Your task to perform on an android device: Open calendar and show me the first week of next month Image 0: 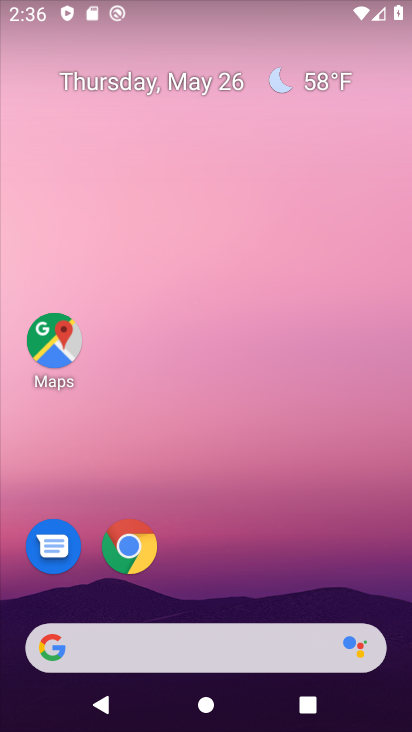
Step 0: press home button
Your task to perform on an android device: Open calendar and show me the first week of next month Image 1: 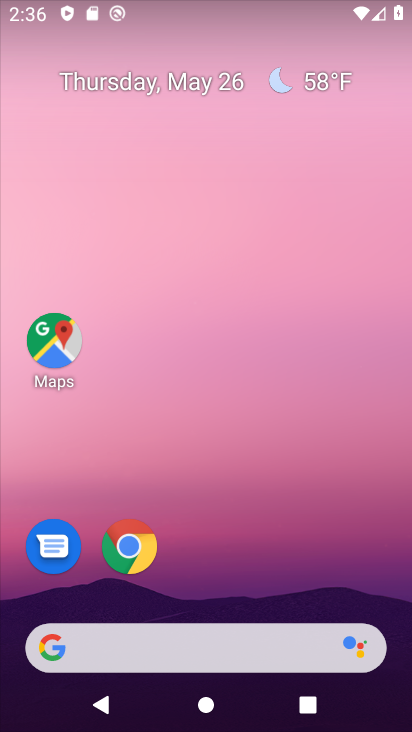
Step 1: drag from (215, 603) to (219, 78)
Your task to perform on an android device: Open calendar and show me the first week of next month Image 2: 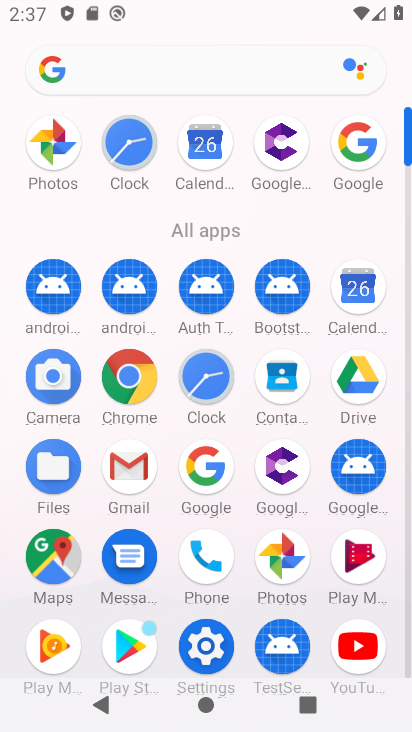
Step 2: click (358, 289)
Your task to perform on an android device: Open calendar and show me the first week of next month Image 3: 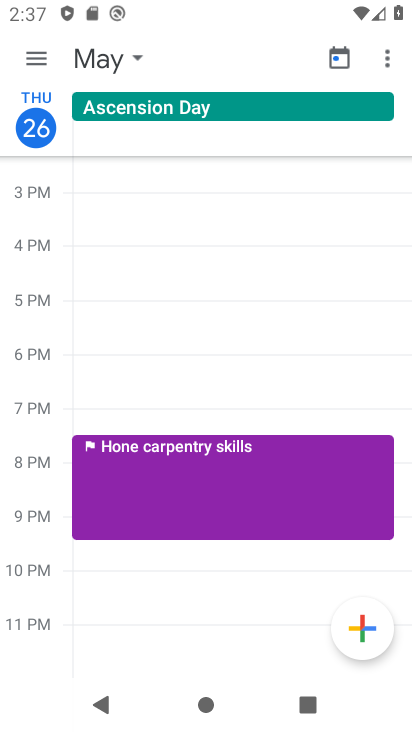
Step 3: drag from (137, 580) to (153, 278)
Your task to perform on an android device: Open calendar and show me the first week of next month Image 4: 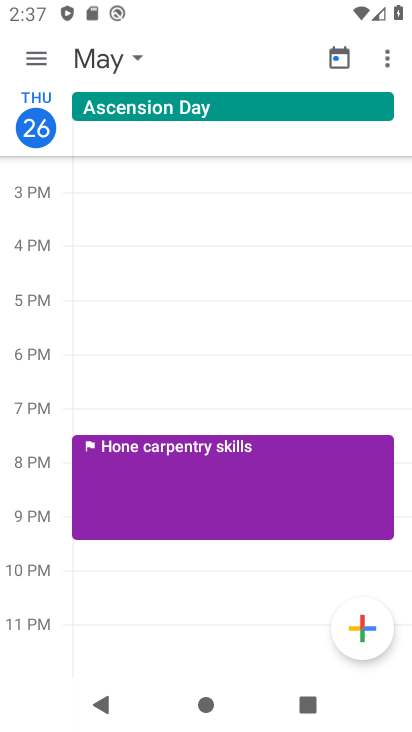
Step 4: click (129, 51)
Your task to perform on an android device: Open calendar and show me the first week of next month Image 5: 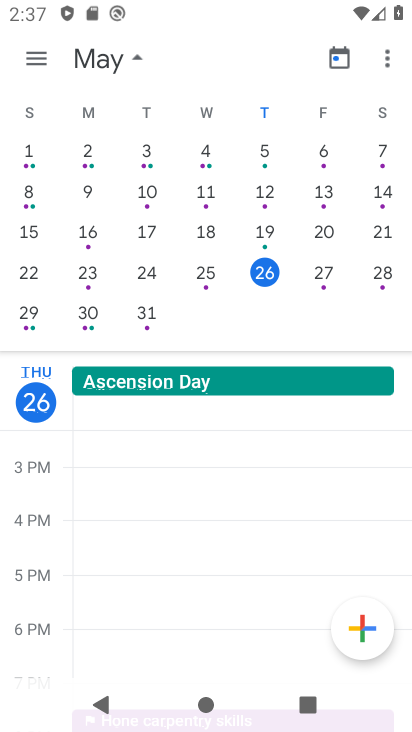
Step 5: drag from (347, 226) to (0, 242)
Your task to perform on an android device: Open calendar and show me the first week of next month Image 6: 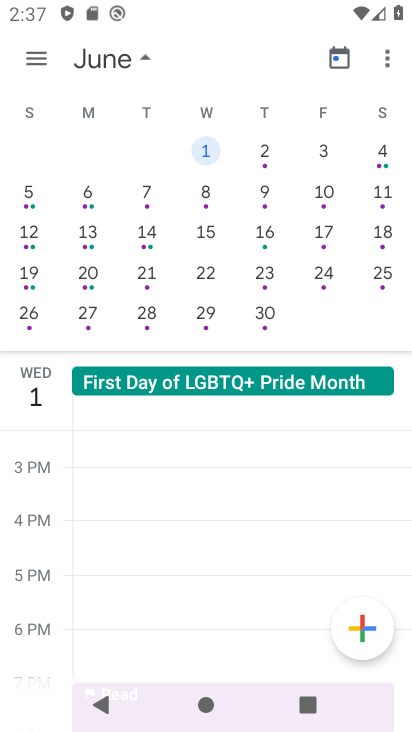
Step 6: click (208, 152)
Your task to perform on an android device: Open calendar and show me the first week of next month Image 7: 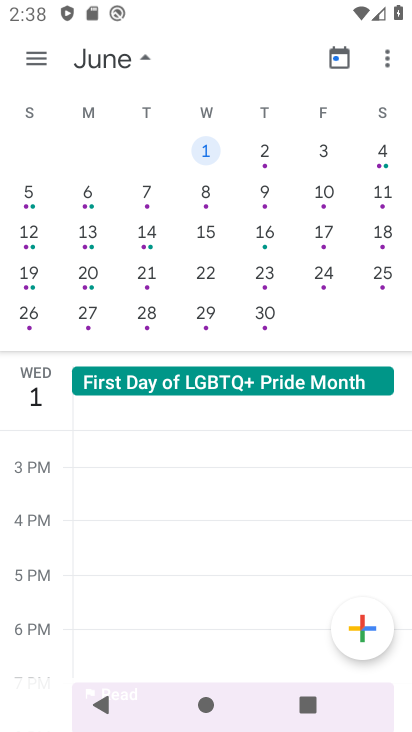
Step 7: click (53, 408)
Your task to perform on an android device: Open calendar and show me the first week of next month Image 8: 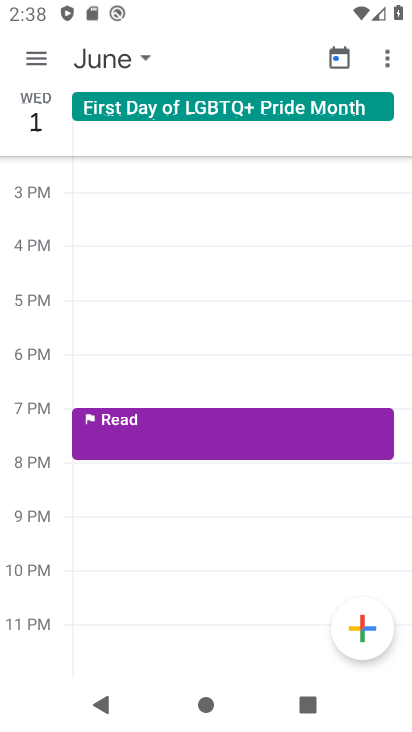
Step 8: click (59, 125)
Your task to perform on an android device: Open calendar and show me the first week of next month Image 9: 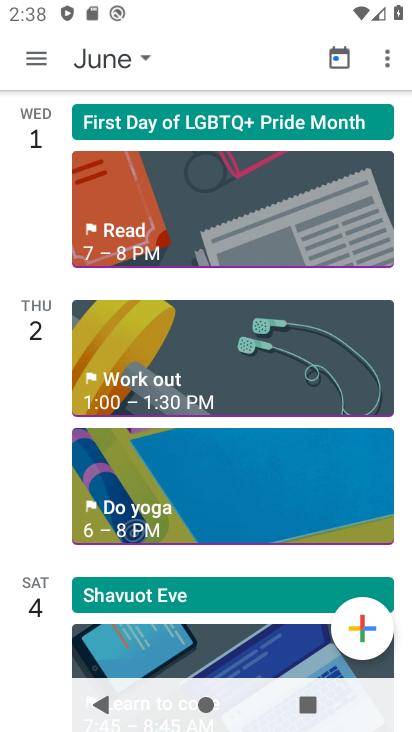
Step 9: task complete